Your task to perform on an android device: see sites visited before in the chrome app Image 0: 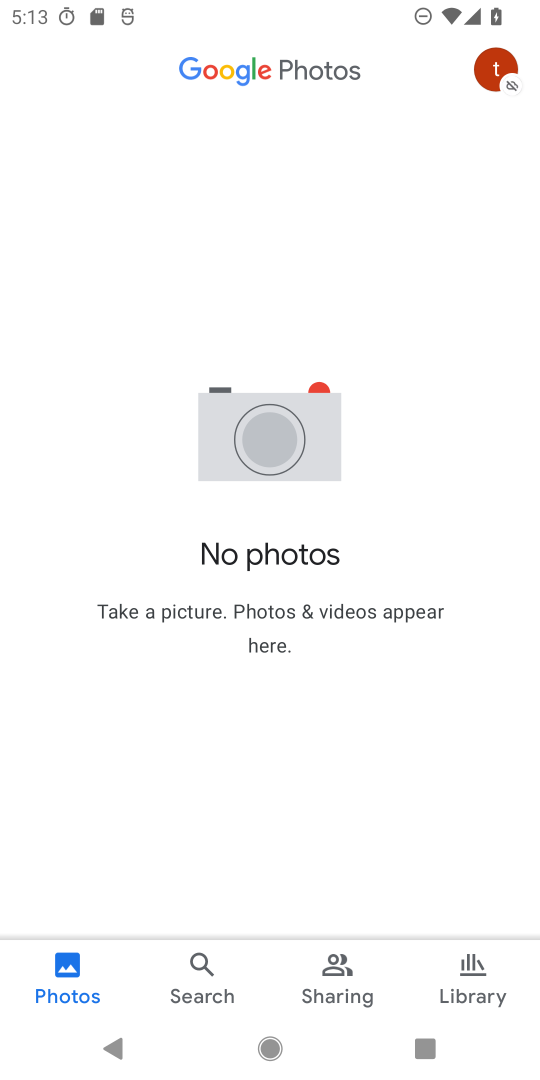
Step 0: press home button
Your task to perform on an android device: see sites visited before in the chrome app Image 1: 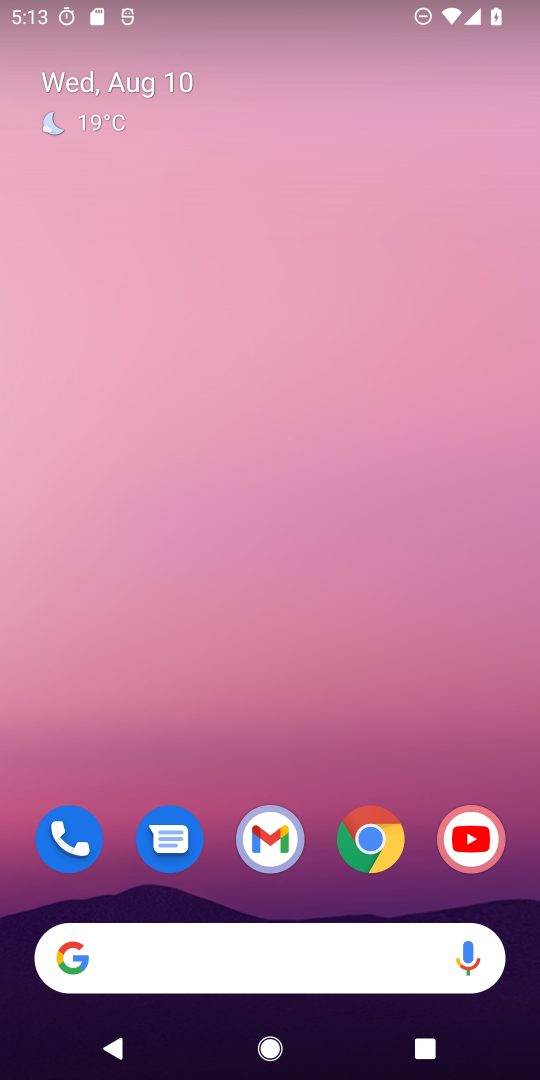
Step 1: click (350, 858)
Your task to perform on an android device: see sites visited before in the chrome app Image 2: 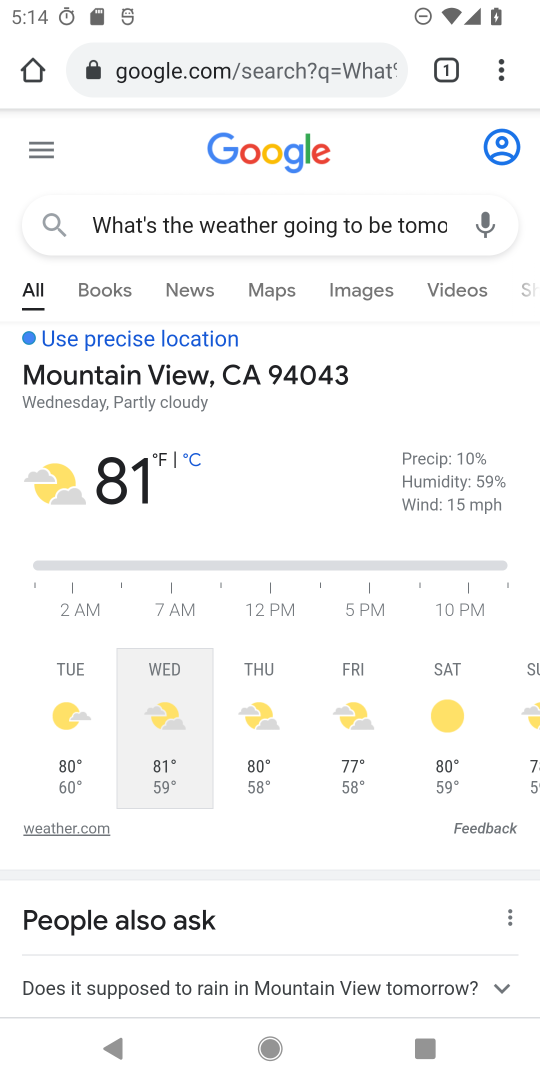
Step 2: click (511, 69)
Your task to perform on an android device: see sites visited before in the chrome app Image 3: 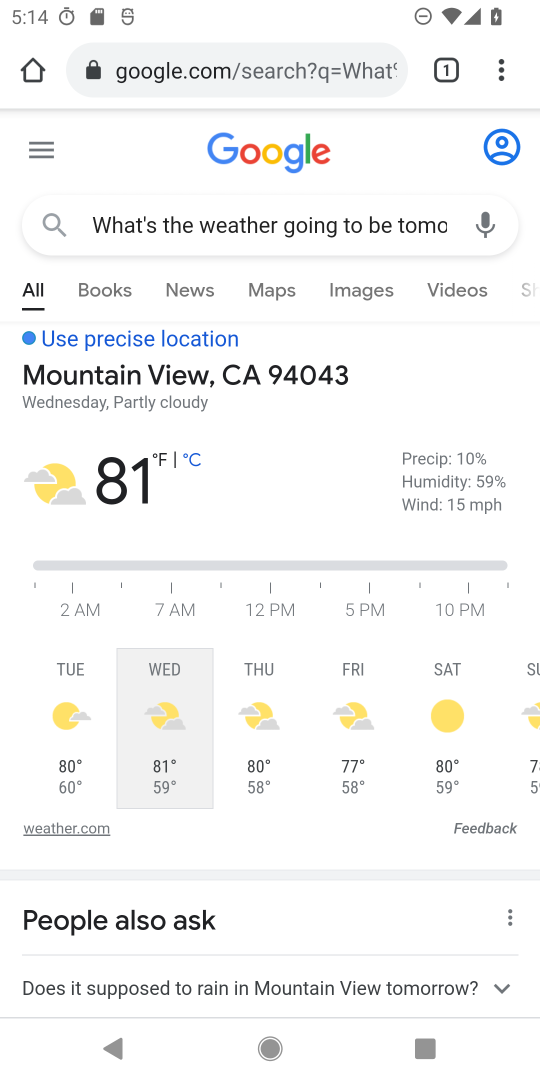
Step 3: click (503, 69)
Your task to perform on an android device: see sites visited before in the chrome app Image 4: 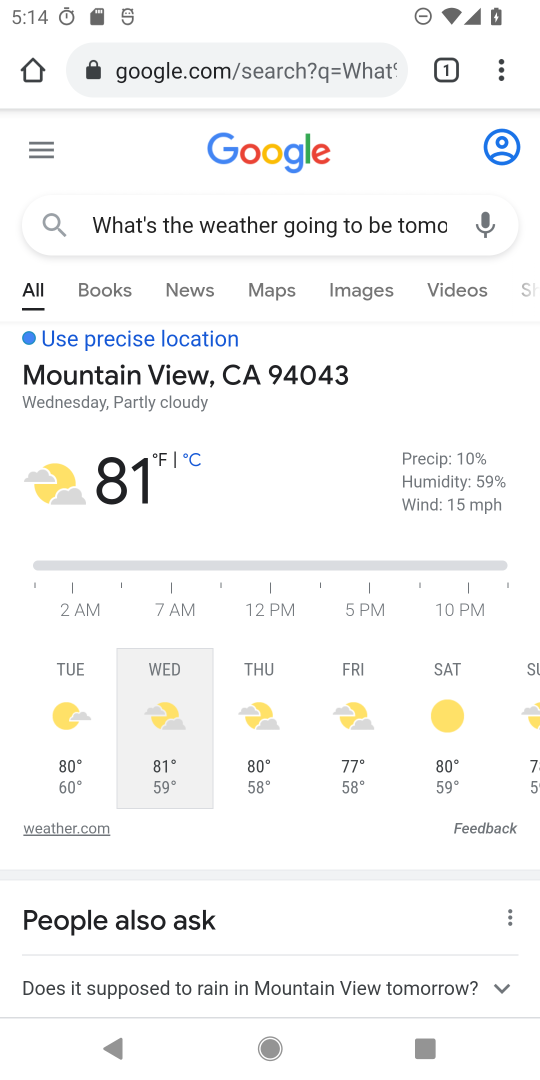
Step 4: click (503, 69)
Your task to perform on an android device: see sites visited before in the chrome app Image 5: 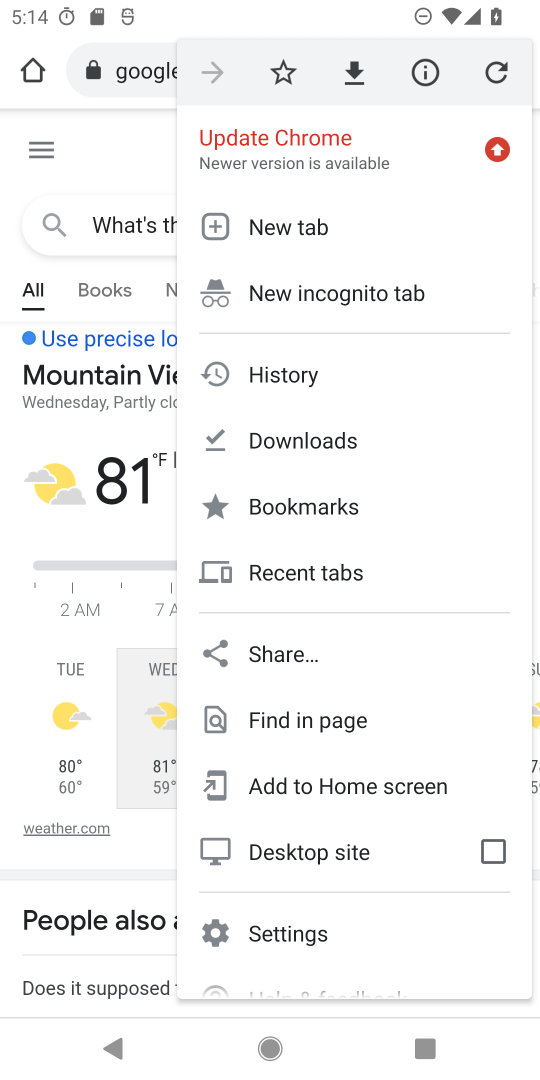
Step 5: click (323, 926)
Your task to perform on an android device: see sites visited before in the chrome app Image 6: 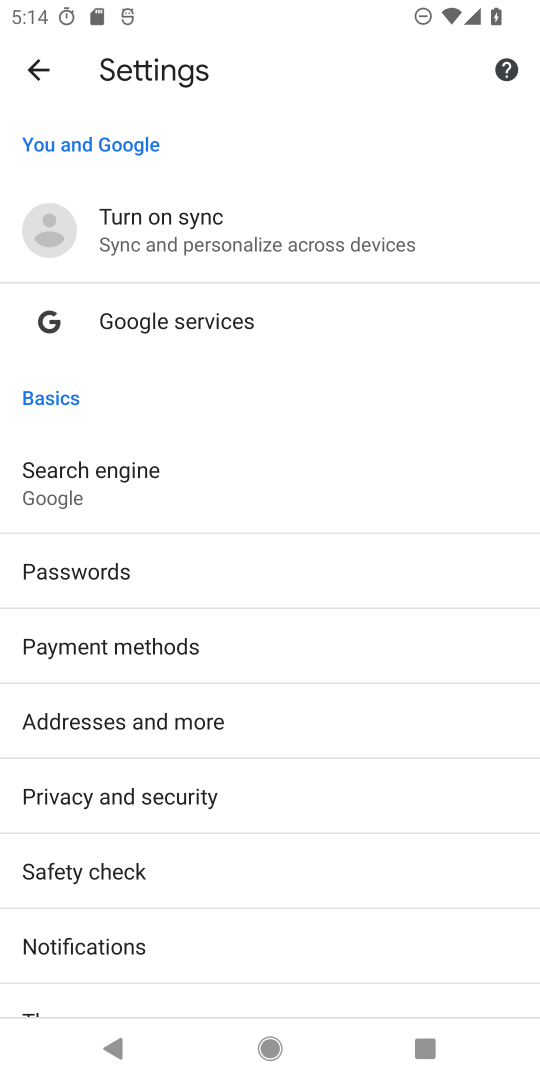
Step 6: drag from (336, 963) to (416, 482)
Your task to perform on an android device: see sites visited before in the chrome app Image 7: 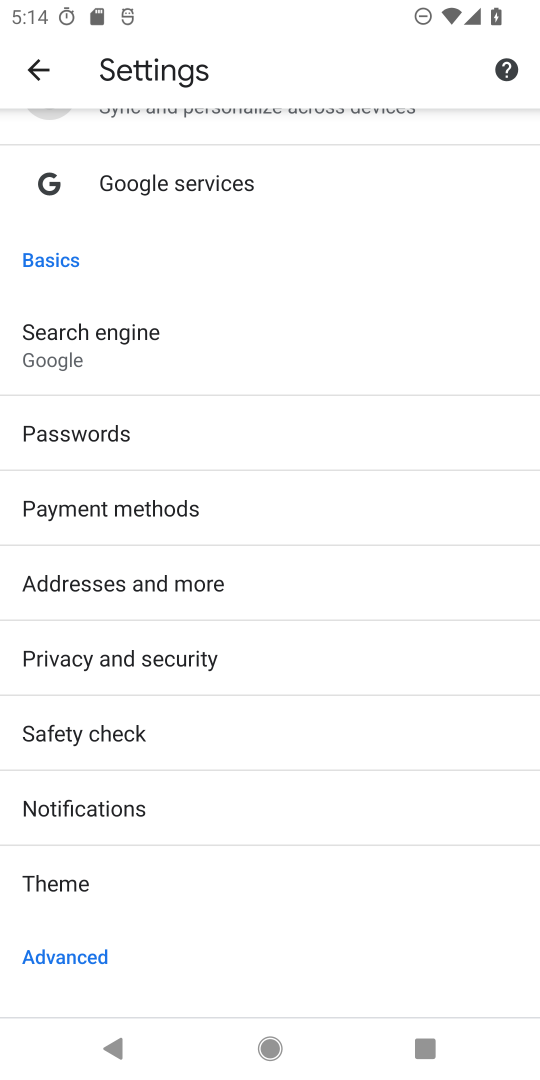
Step 7: drag from (373, 909) to (490, 350)
Your task to perform on an android device: see sites visited before in the chrome app Image 8: 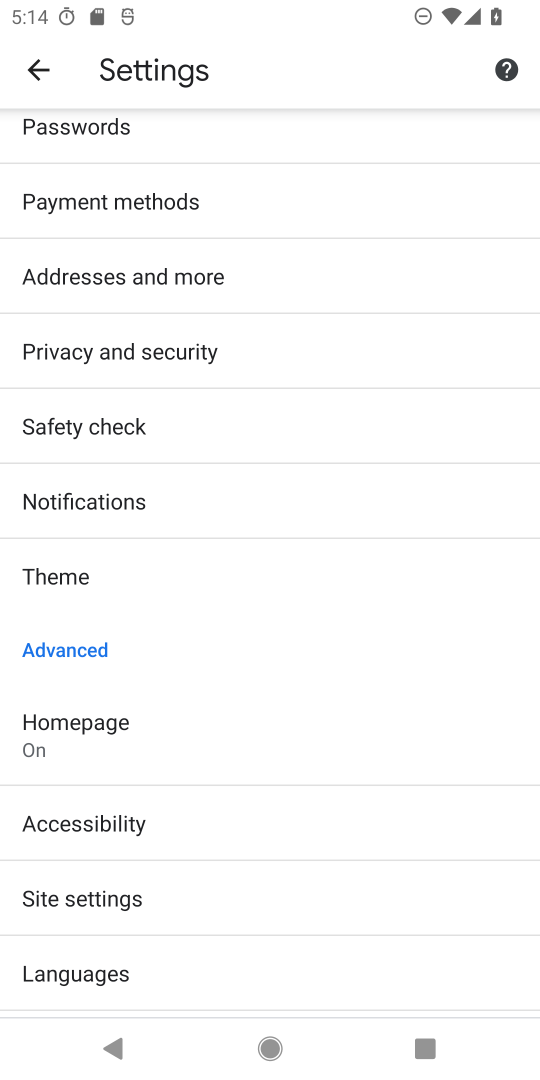
Step 8: click (96, 904)
Your task to perform on an android device: see sites visited before in the chrome app Image 9: 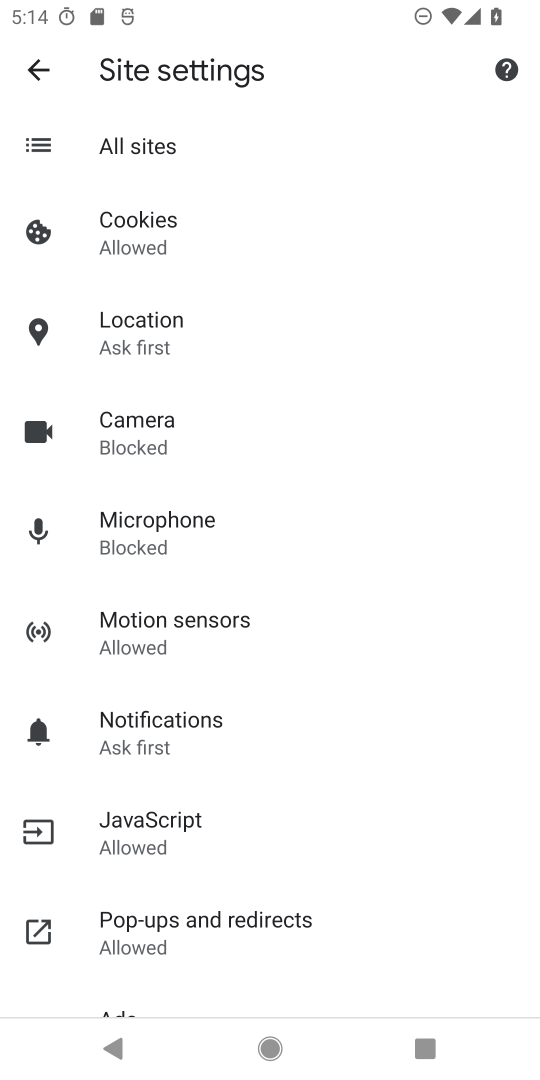
Step 9: task complete